Your task to perform on an android device: turn off javascript in the chrome app Image 0: 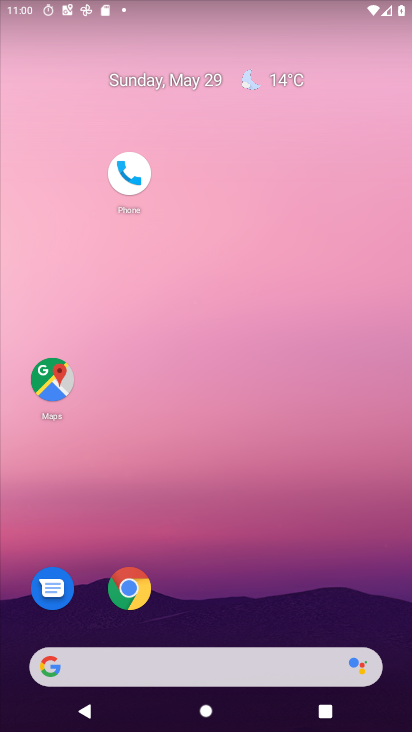
Step 0: drag from (288, 698) to (206, 189)
Your task to perform on an android device: turn off javascript in the chrome app Image 1: 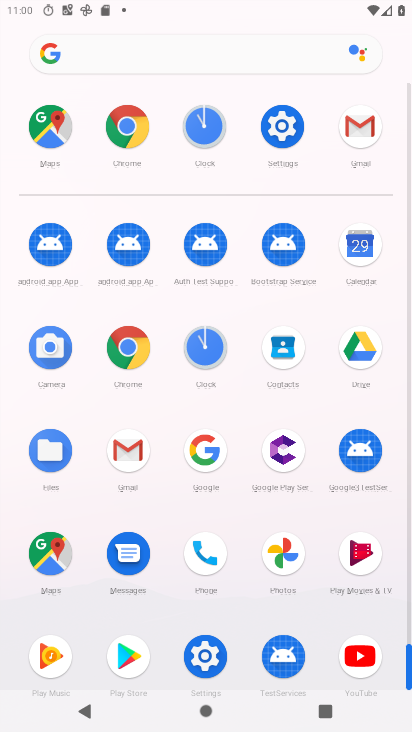
Step 1: click (125, 132)
Your task to perform on an android device: turn off javascript in the chrome app Image 2: 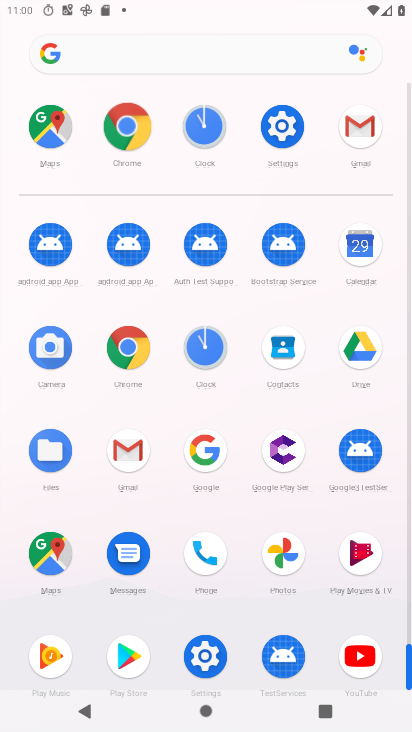
Step 2: click (138, 125)
Your task to perform on an android device: turn off javascript in the chrome app Image 3: 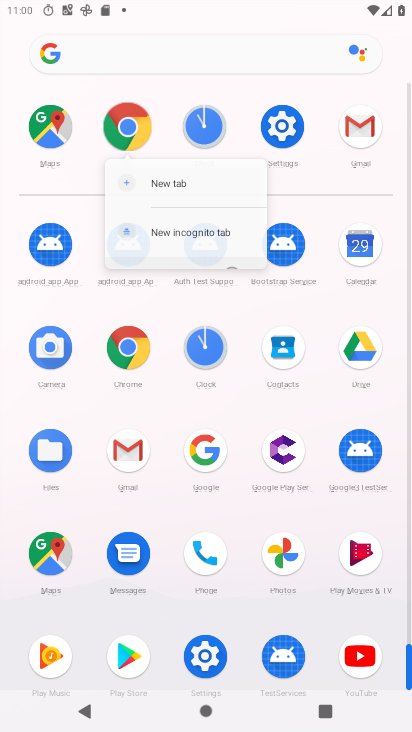
Step 3: click (138, 125)
Your task to perform on an android device: turn off javascript in the chrome app Image 4: 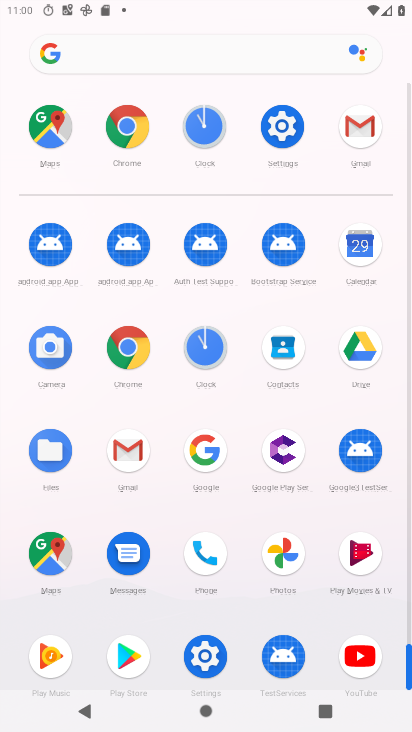
Step 4: click (138, 125)
Your task to perform on an android device: turn off javascript in the chrome app Image 5: 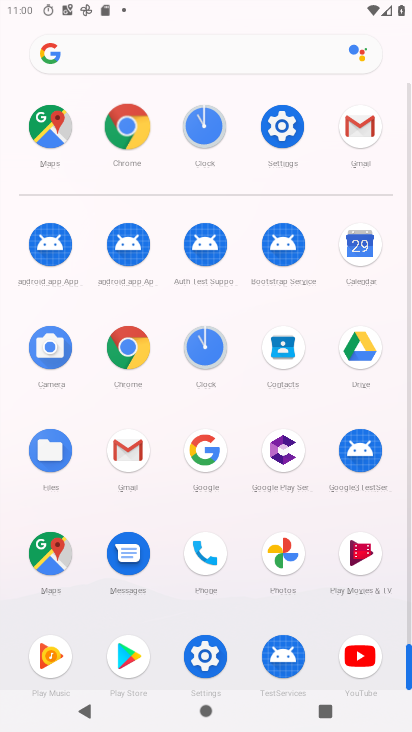
Step 5: click (138, 126)
Your task to perform on an android device: turn off javascript in the chrome app Image 6: 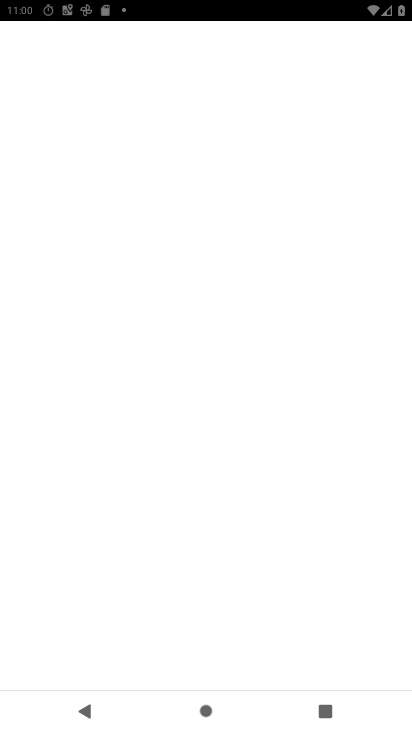
Step 6: click (137, 134)
Your task to perform on an android device: turn off javascript in the chrome app Image 7: 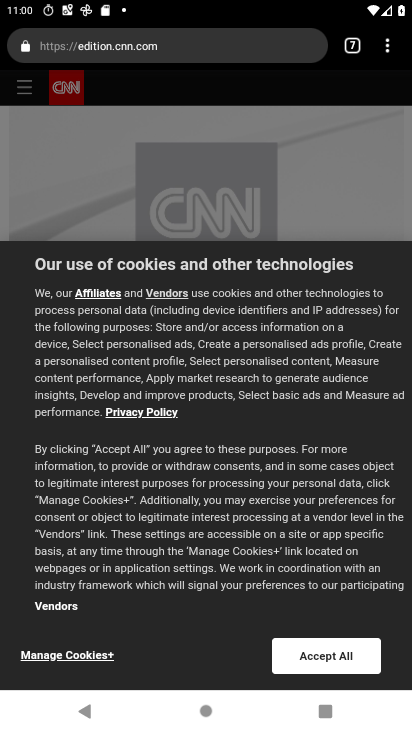
Step 7: drag from (384, 49) to (214, 548)
Your task to perform on an android device: turn off javascript in the chrome app Image 8: 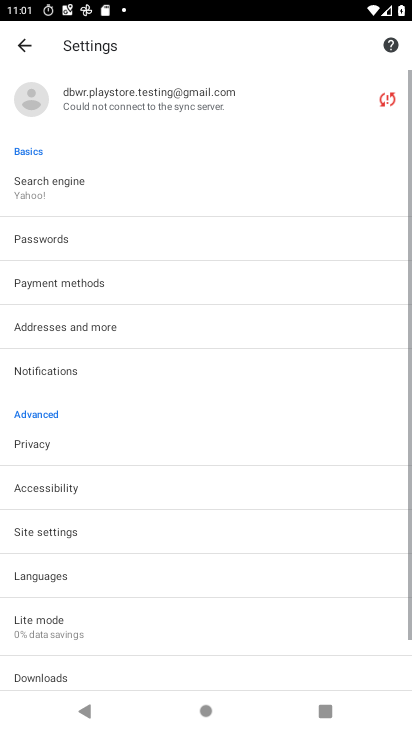
Step 8: click (215, 549)
Your task to perform on an android device: turn off javascript in the chrome app Image 9: 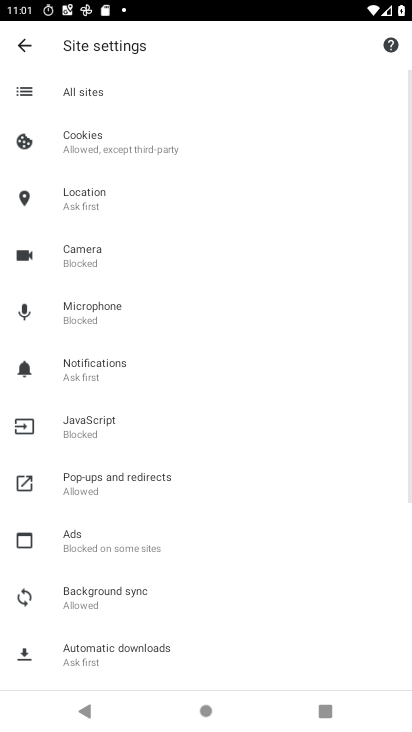
Step 9: click (21, 44)
Your task to perform on an android device: turn off javascript in the chrome app Image 10: 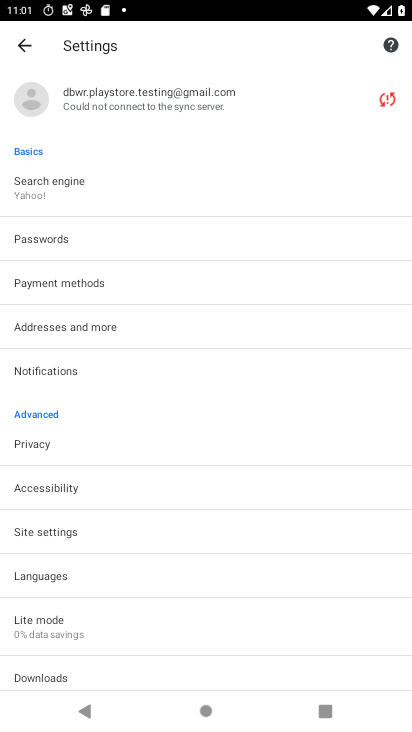
Step 10: click (40, 536)
Your task to perform on an android device: turn off javascript in the chrome app Image 11: 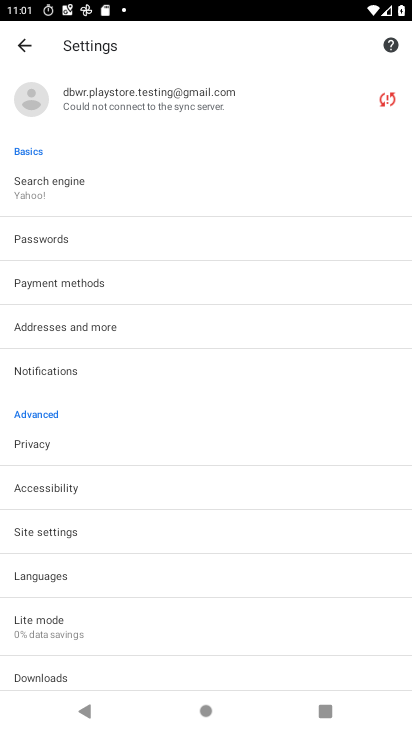
Step 11: click (41, 535)
Your task to perform on an android device: turn off javascript in the chrome app Image 12: 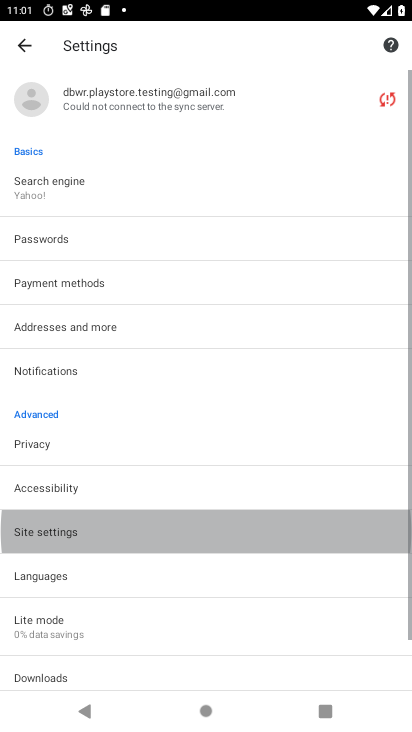
Step 12: drag from (46, 531) to (61, 566)
Your task to perform on an android device: turn off javascript in the chrome app Image 13: 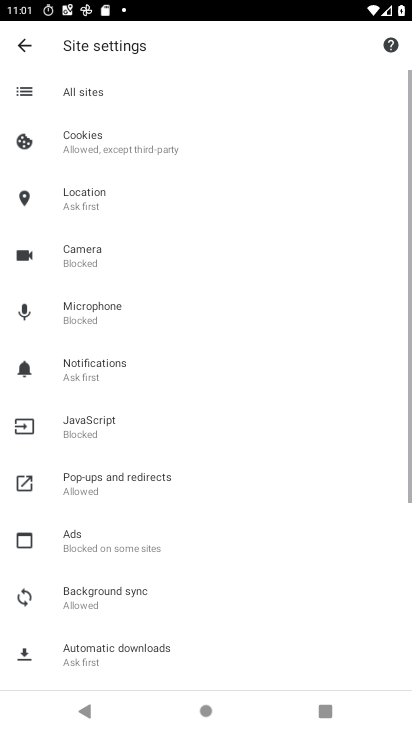
Step 13: click (97, 423)
Your task to perform on an android device: turn off javascript in the chrome app Image 14: 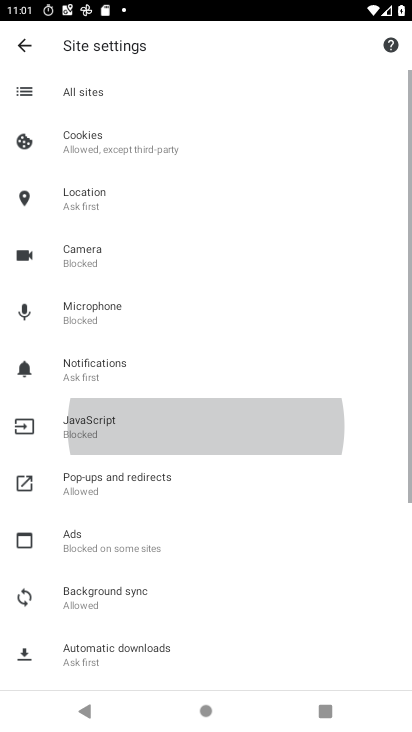
Step 14: click (97, 423)
Your task to perform on an android device: turn off javascript in the chrome app Image 15: 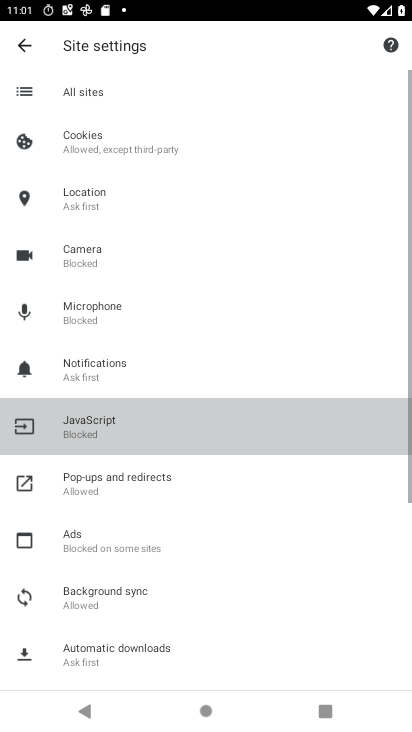
Step 15: click (97, 423)
Your task to perform on an android device: turn off javascript in the chrome app Image 16: 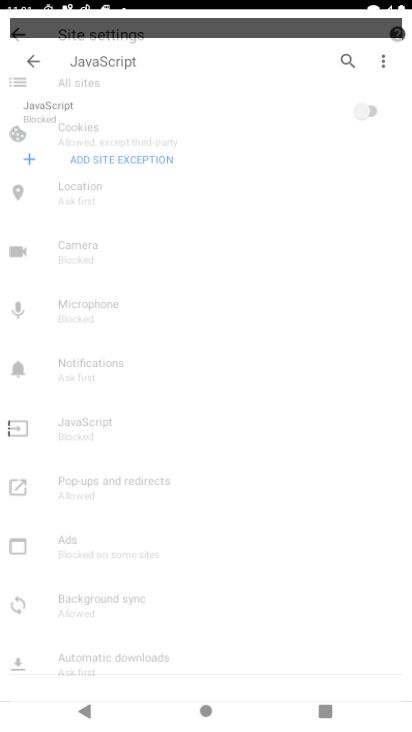
Step 16: click (97, 422)
Your task to perform on an android device: turn off javascript in the chrome app Image 17: 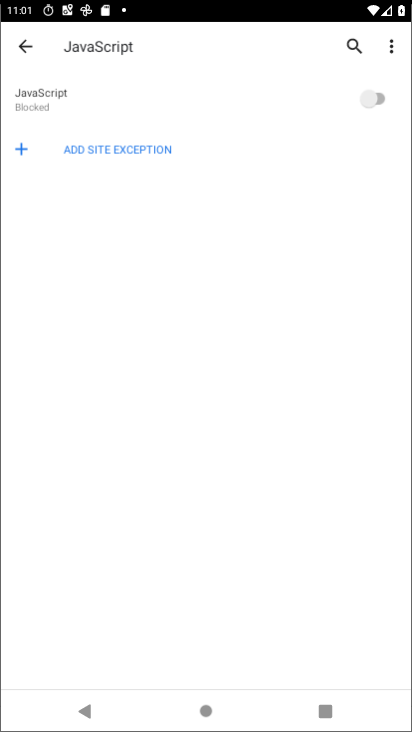
Step 17: click (97, 422)
Your task to perform on an android device: turn off javascript in the chrome app Image 18: 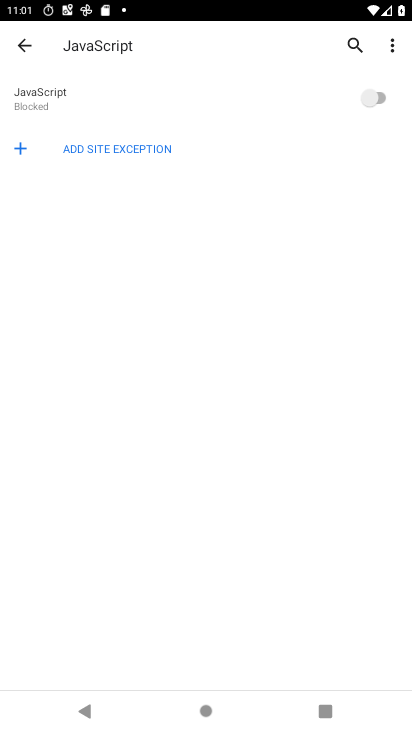
Step 18: task complete